Your task to perform on an android device: find photos in the google photos app Image 0: 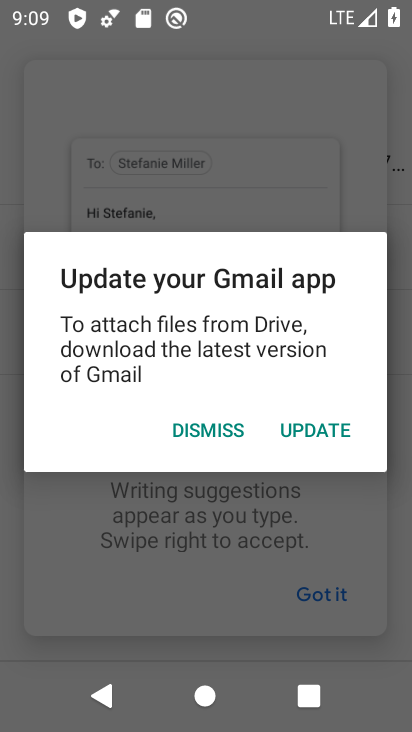
Step 0: press home button
Your task to perform on an android device: find photos in the google photos app Image 1: 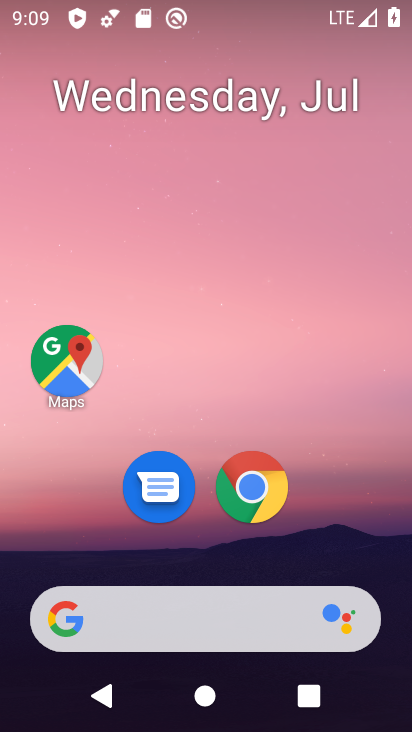
Step 1: drag from (199, 580) to (202, 97)
Your task to perform on an android device: find photos in the google photos app Image 2: 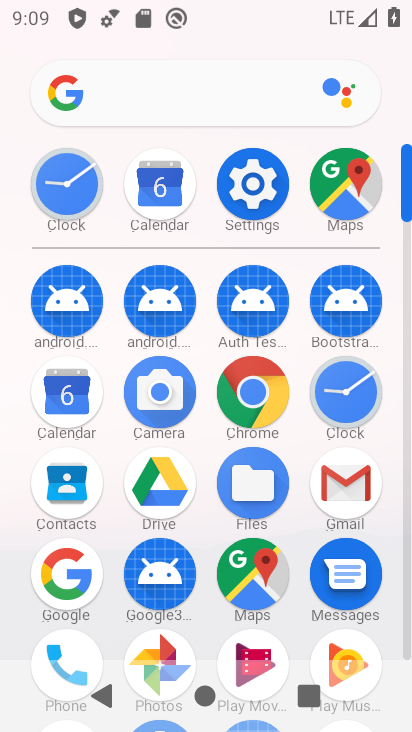
Step 2: click (165, 638)
Your task to perform on an android device: find photos in the google photos app Image 3: 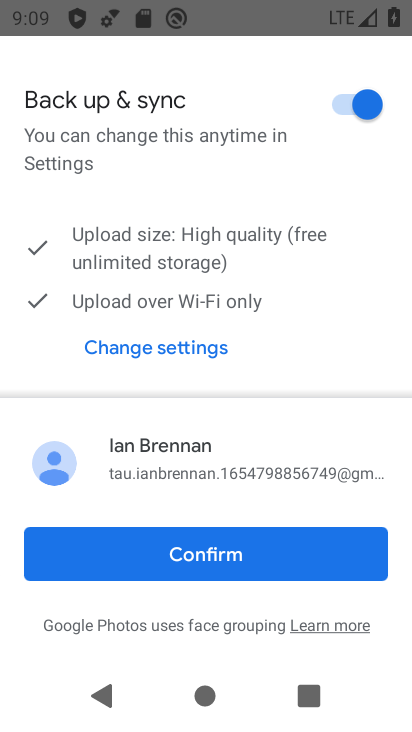
Step 3: click (168, 541)
Your task to perform on an android device: find photos in the google photos app Image 4: 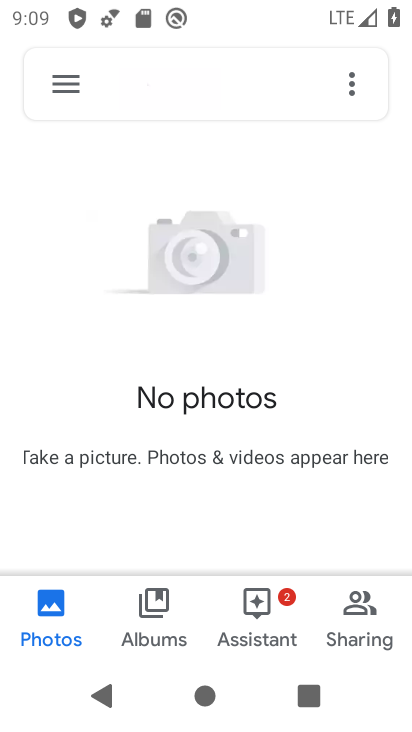
Step 4: click (270, 619)
Your task to perform on an android device: find photos in the google photos app Image 5: 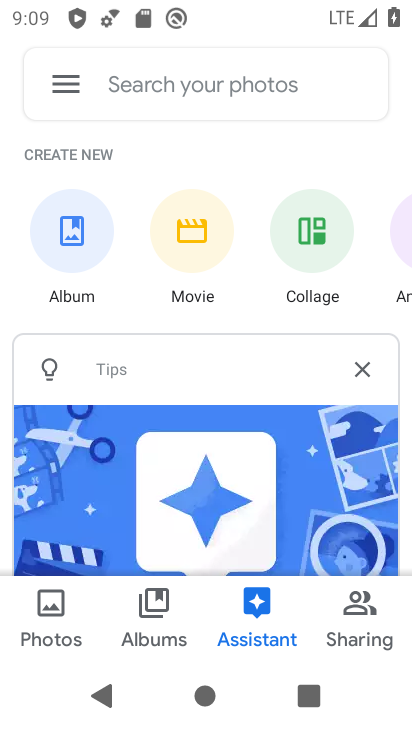
Step 5: click (48, 613)
Your task to perform on an android device: find photos in the google photos app Image 6: 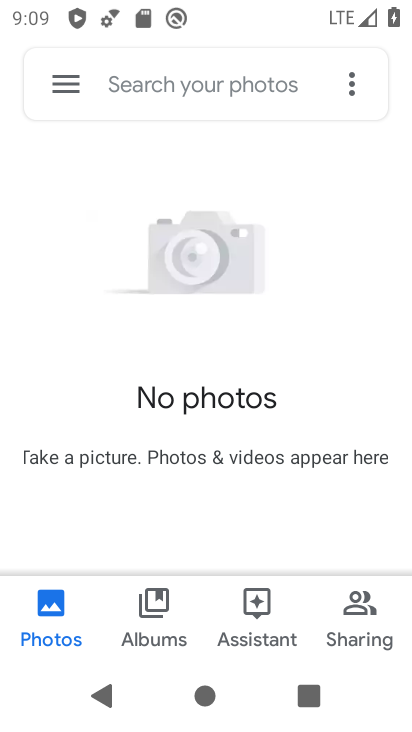
Step 6: task complete